Your task to perform on an android device: uninstall "Upside-Cash back on gas & food" Image 0: 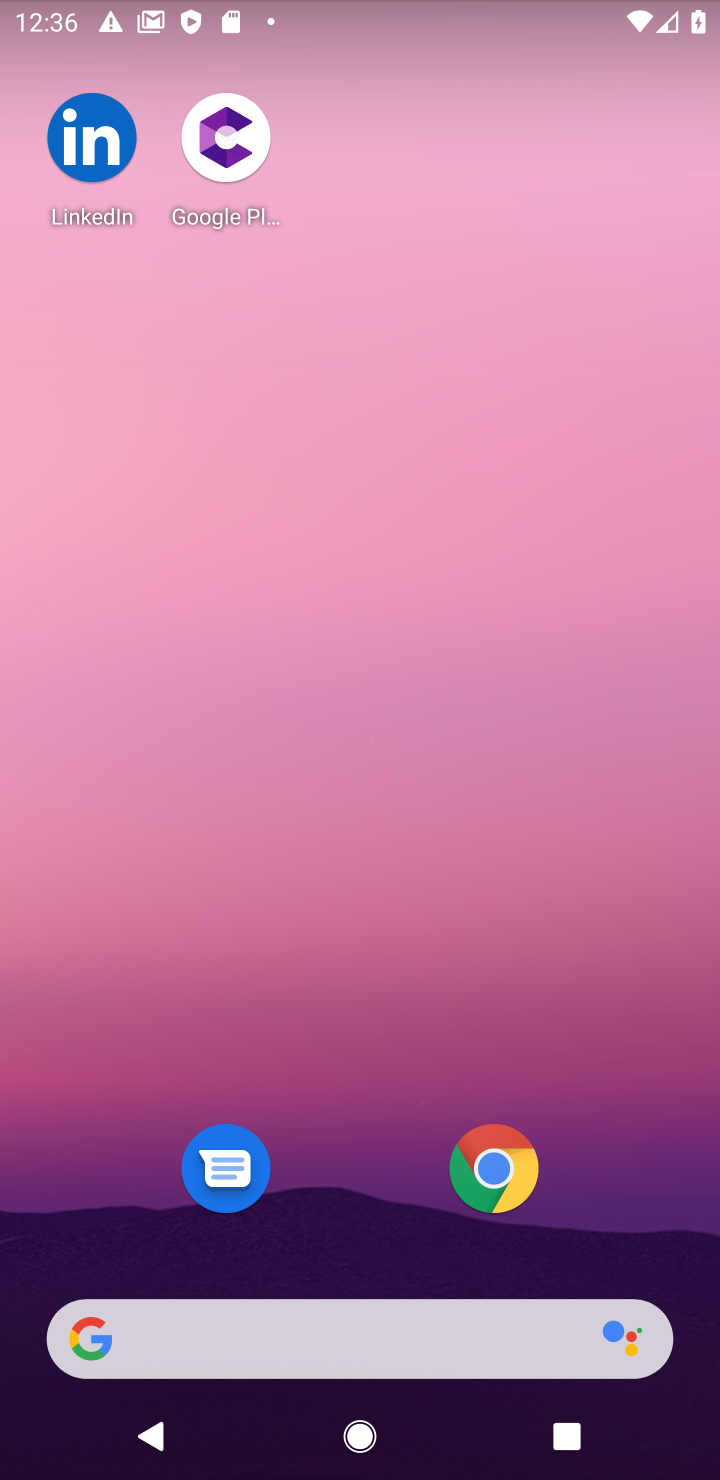
Step 0: press home button
Your task to perform on an android device: uninstall "Upside-Cash back on gas & food" Image 1: 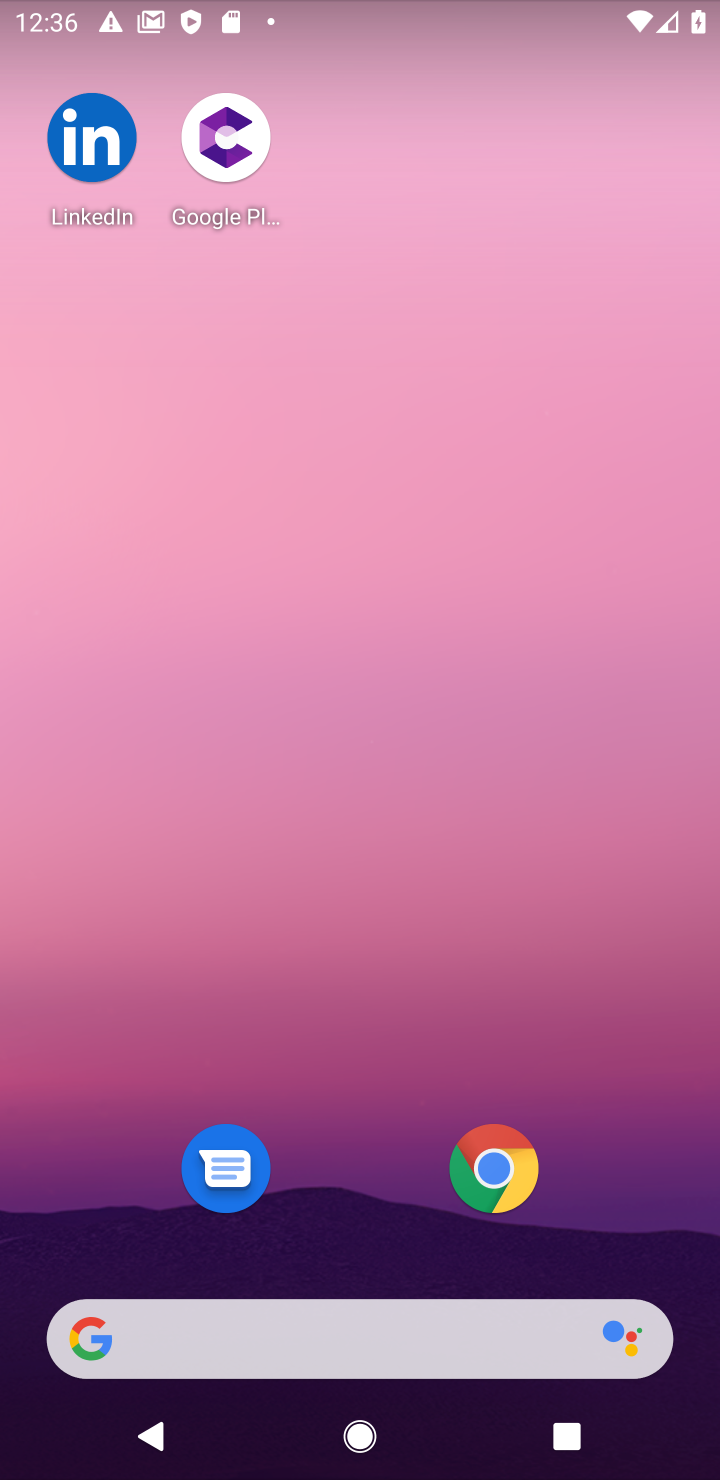
Step 1: press home button
Your task to perform on an android device: uninstall "Upside-Cash back on gas & food" Image 2: 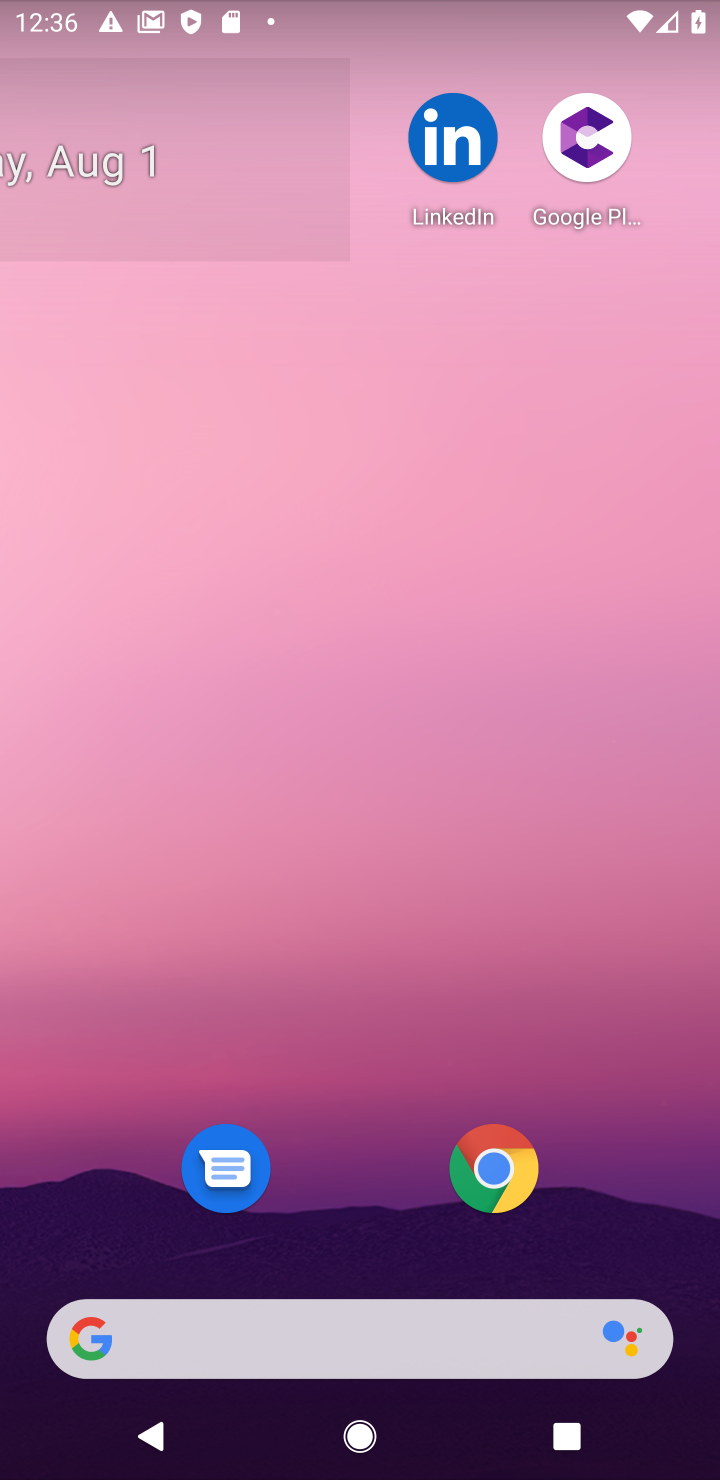
Step 2: click (388, 89)
Your task to perform on an android device: uninstall "Upside-Cash back on gas & food" Image 3: 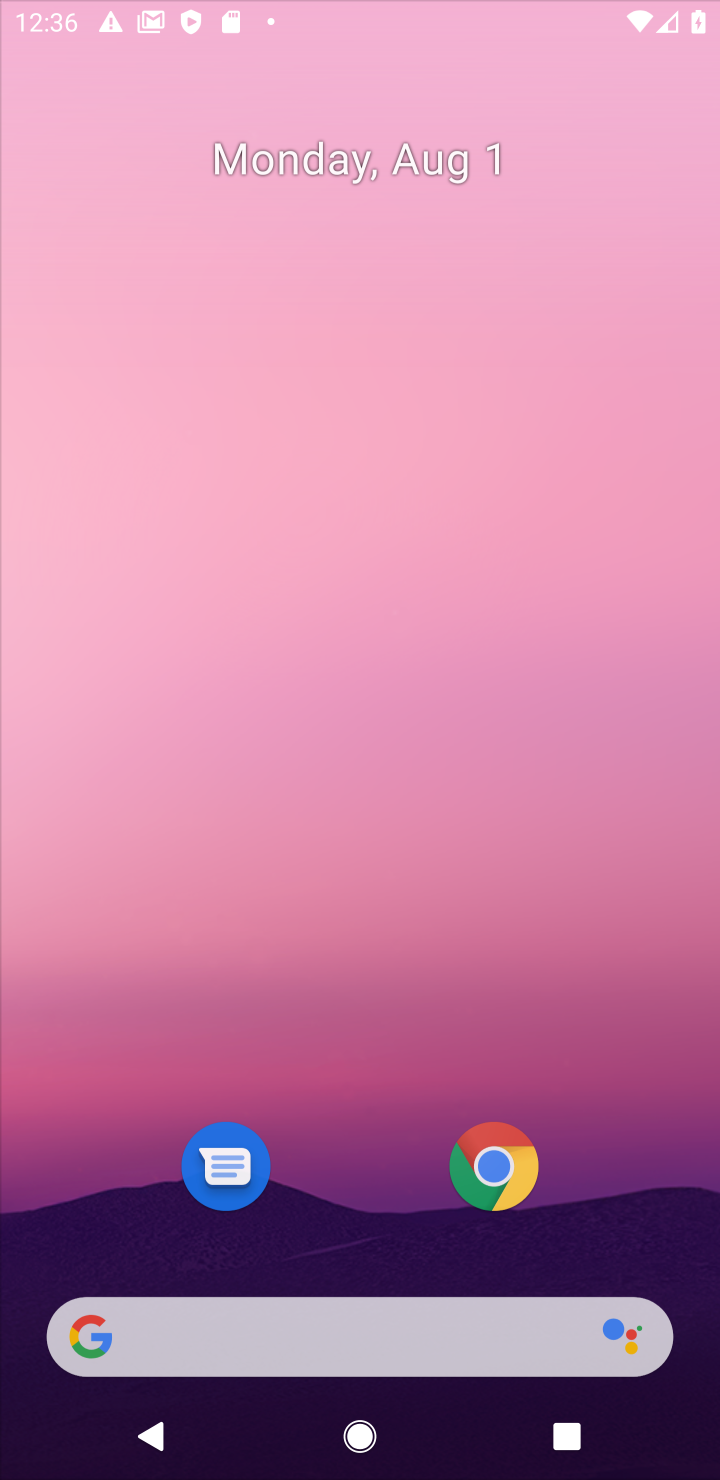
Step 3: drag from (334, 1002) to (381, 183)
Your task to perform on an android device: uninstall "Upside-Cash back on gas & food" Image 4: 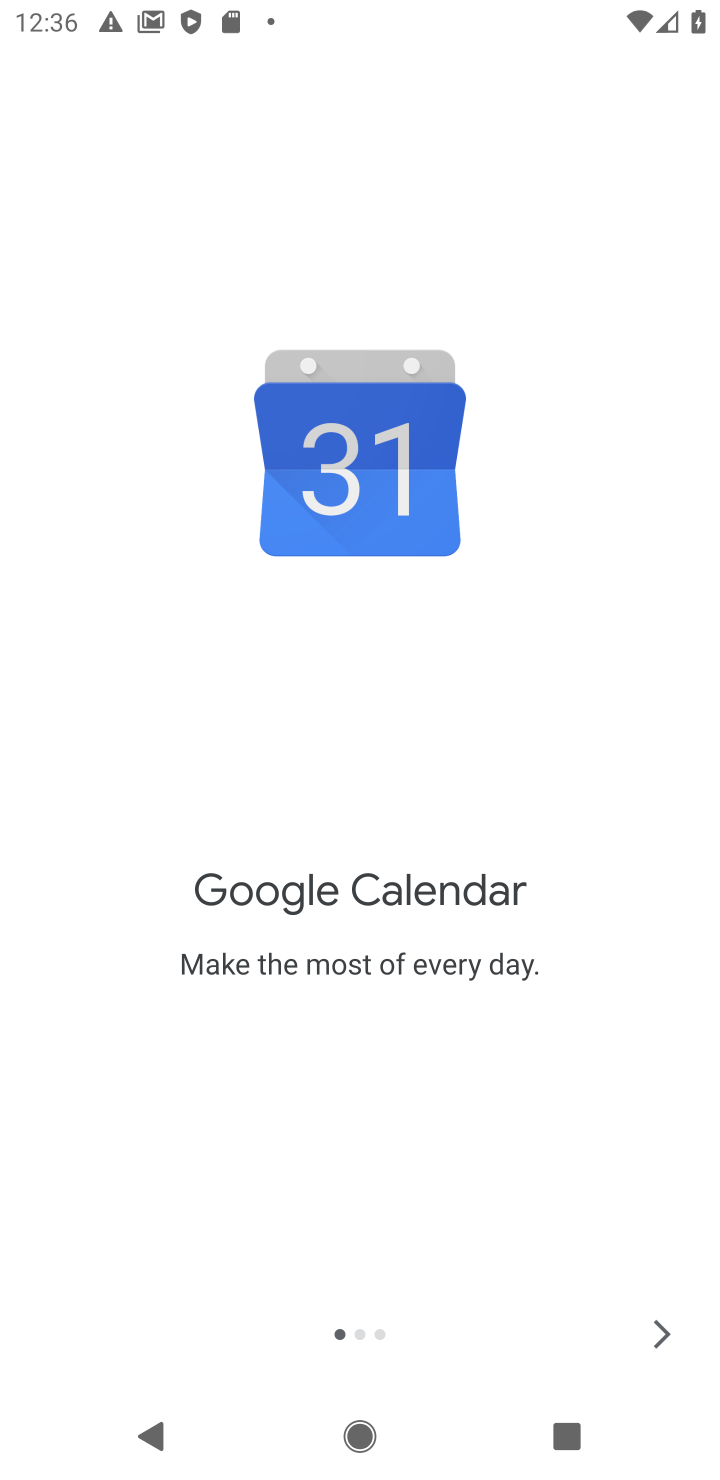
Step 4: press home button
Your task to perform on an android device: uninstall "Upside-Cash back on gas & food" Image 5: 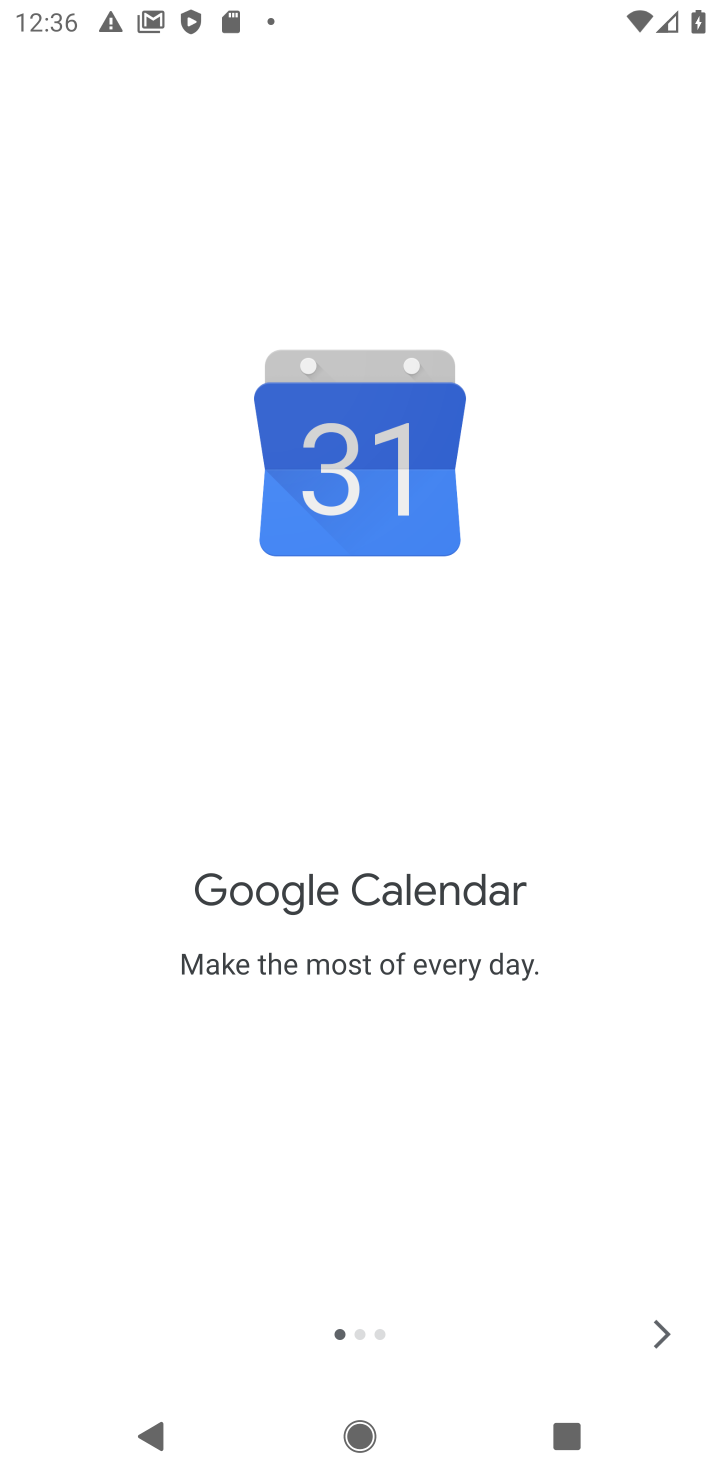
Step 5: press home button
Your task to perform on an android device: uninstall "Upside-Cash back on gas & food" Image 6: 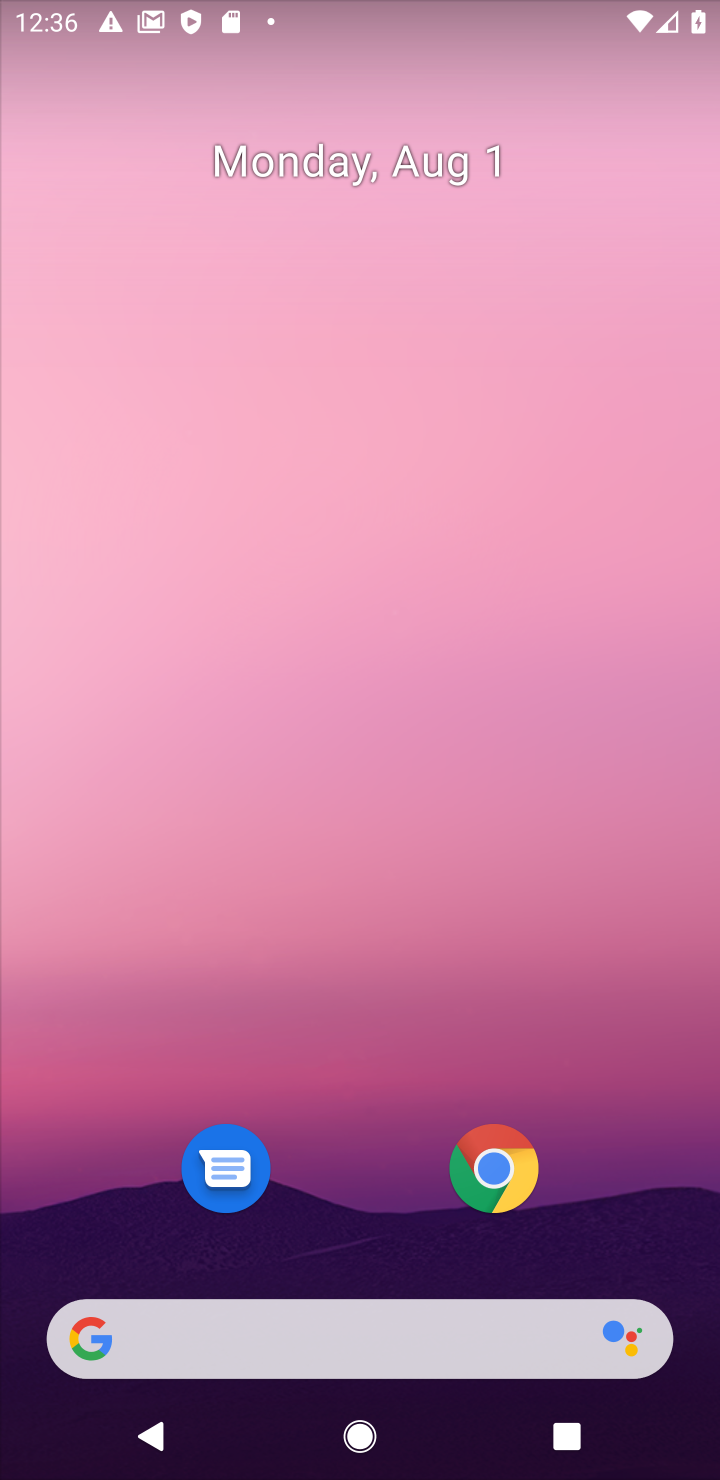
Step 6: drag from (392, 1210) to (327, 195)
Your task to perform on an android device: uninstall "Upside-Cash back on gas & food" Image 7: 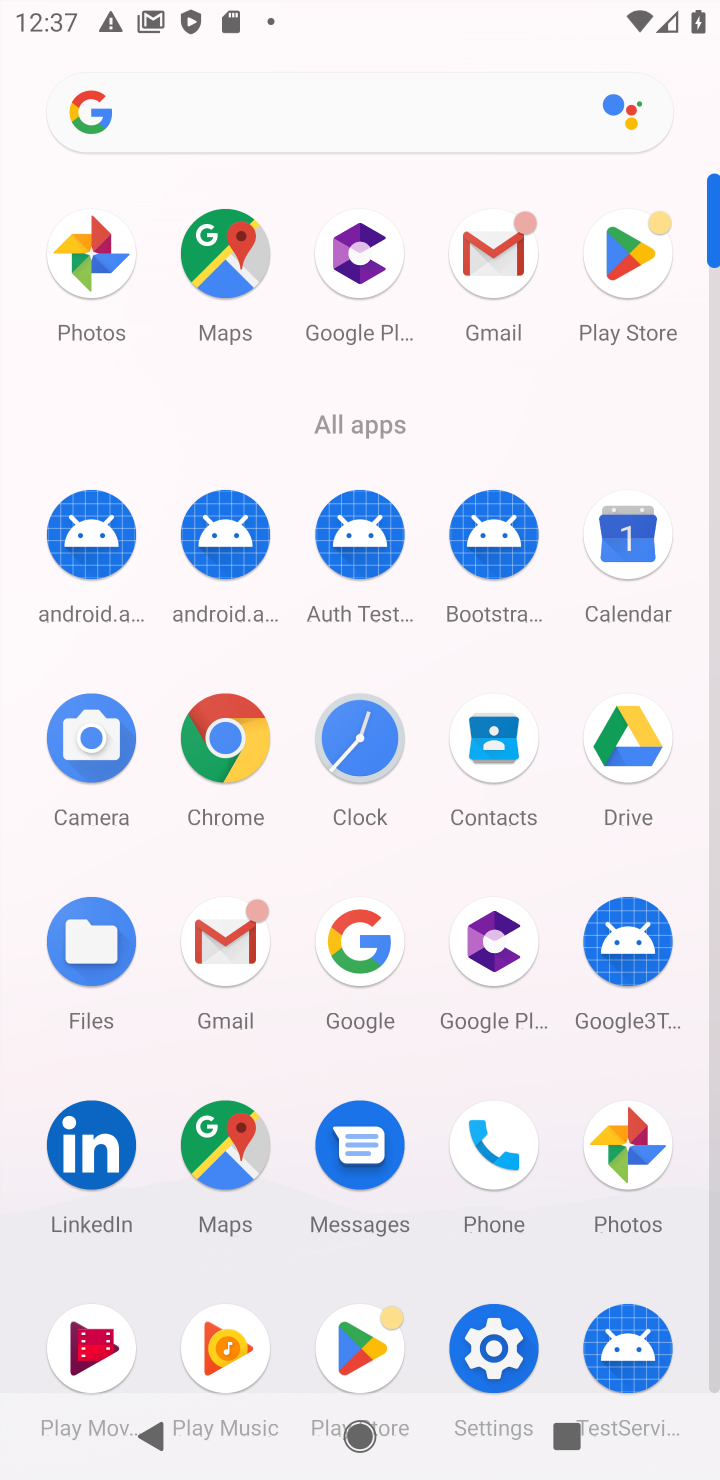
Step 7: click (632, 250)
Your task to perform on an android device: uninstall "Upside-Cash back on gas & food" Image 8: 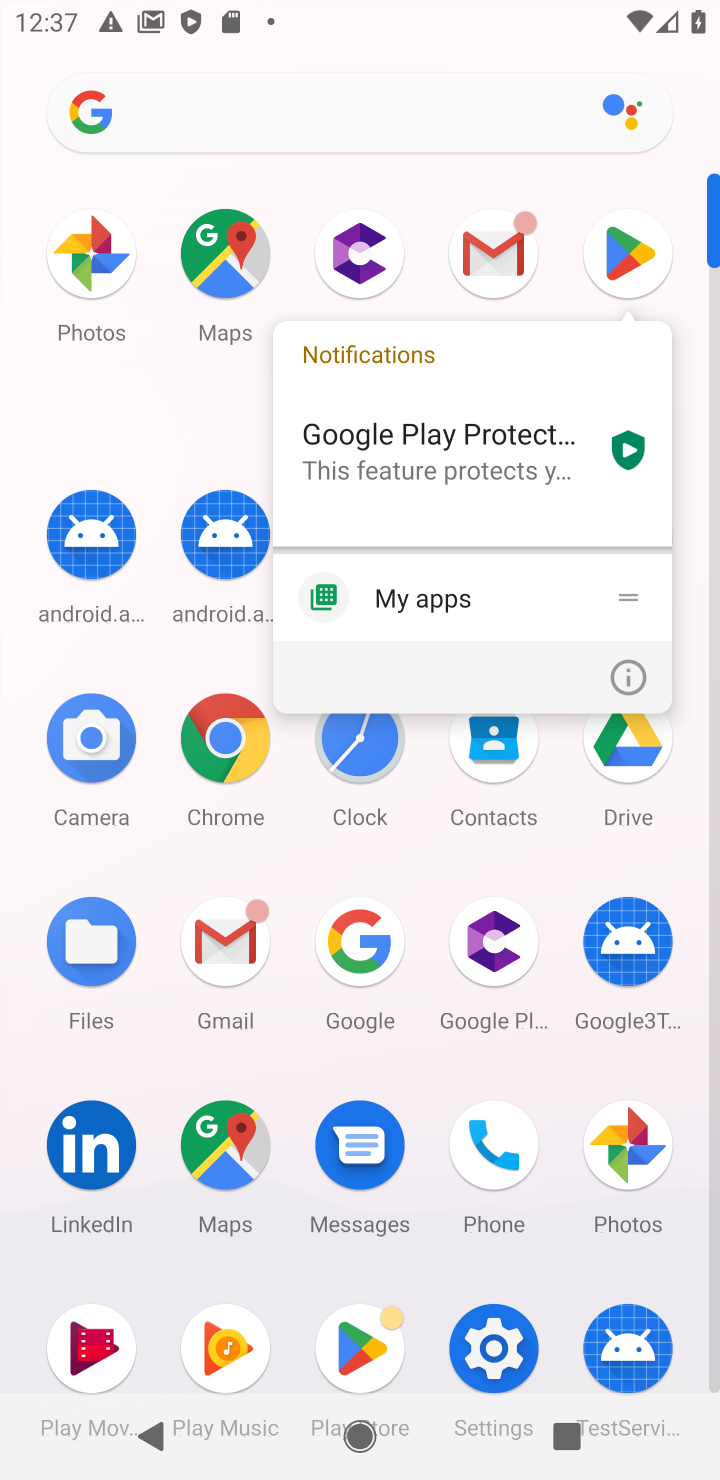
Step 8: click (625, 236)
Your task to perform on an android device: uninstall "Upside-Cash back on gas & food" Image 9: 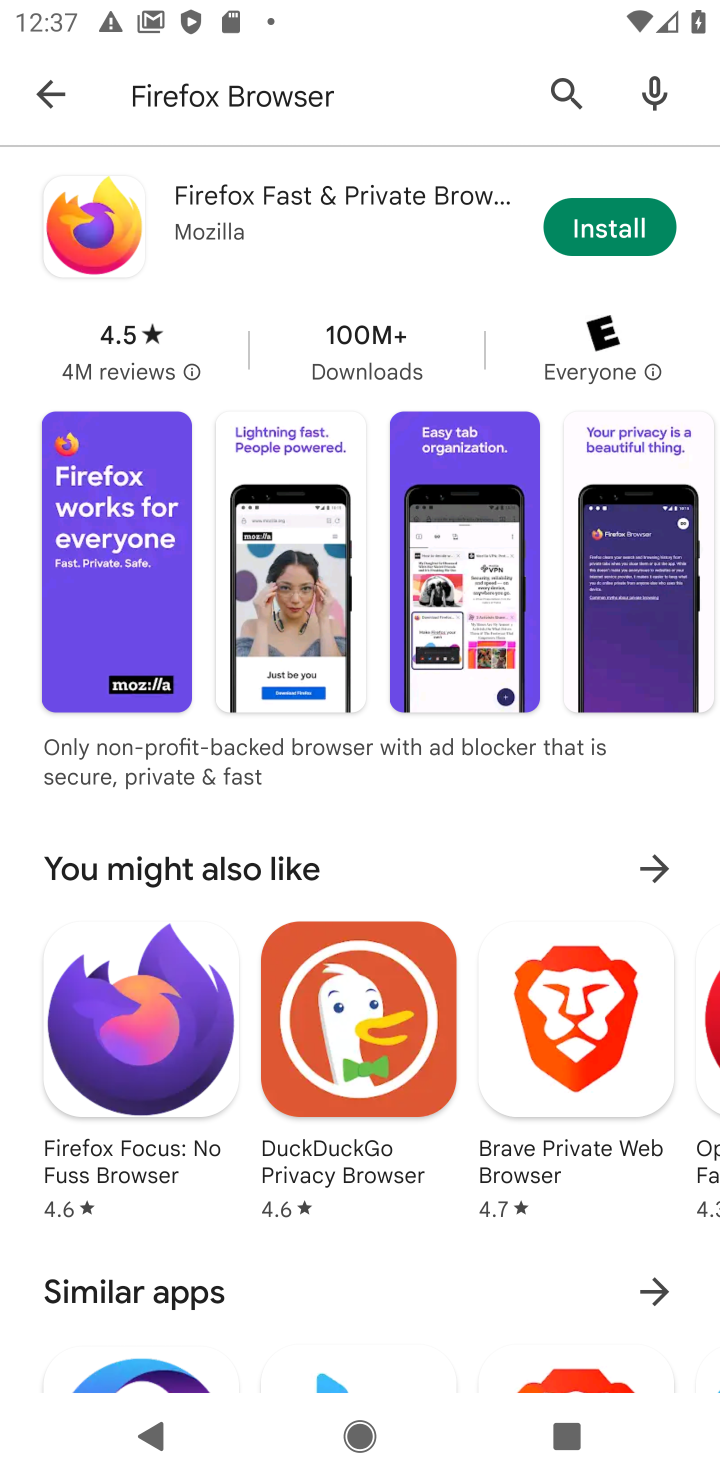
Step 9: click (438, 89)
Your task to perform on an android device: uninstall "Upside-Cash back on gas & food" Image 10: 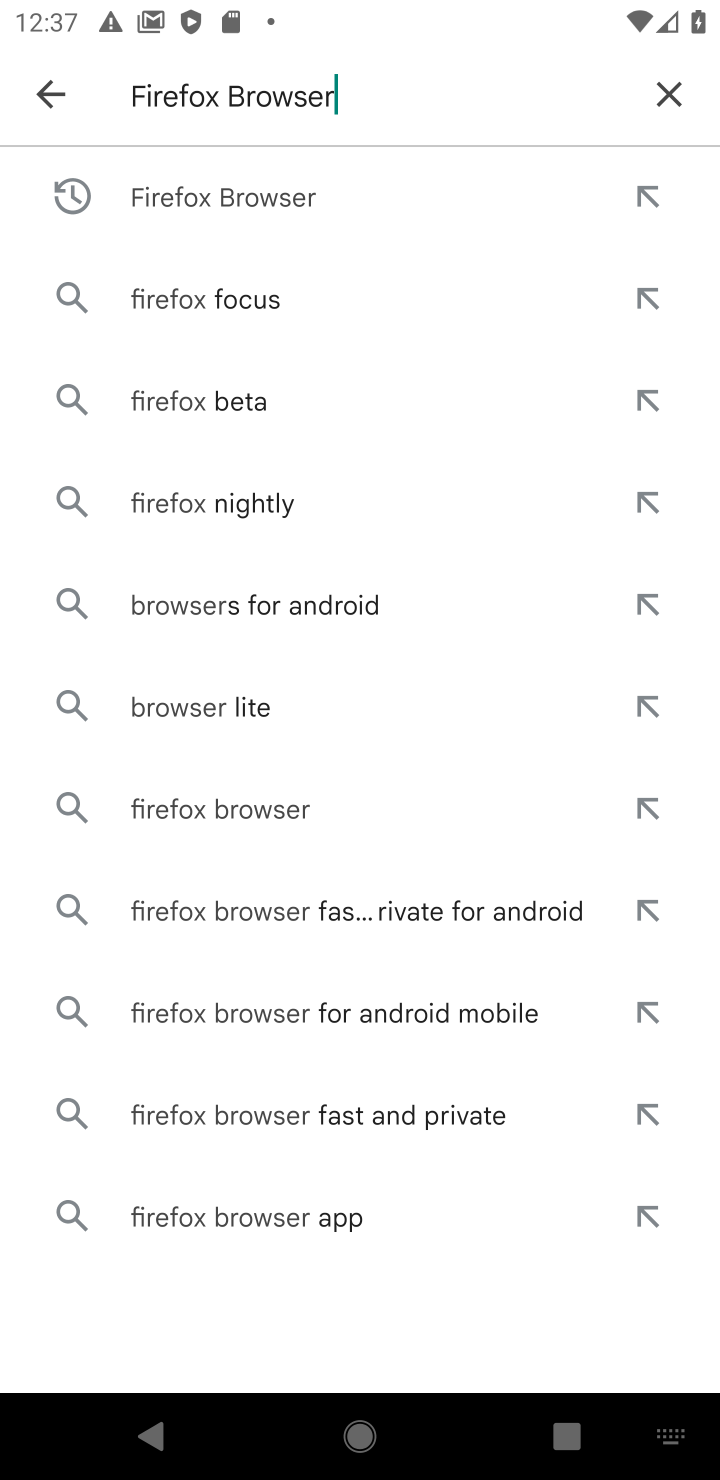
Step 10: click (649, 80)
Your task to perform on an android device: uninstall "Upside-Cash back on gas & food" Image 11: 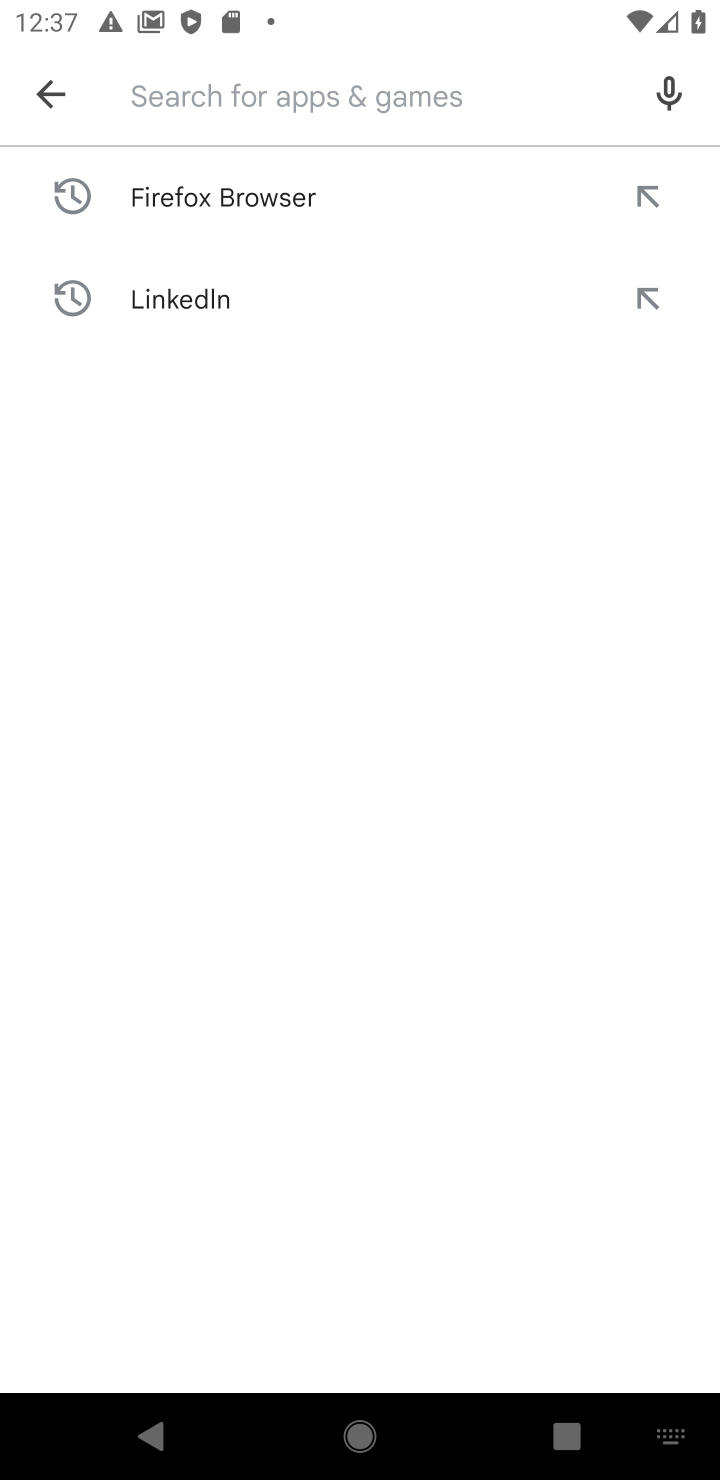
Step 11: type "Upside-Cash back on gas & food"
Your task to perform on an android device: uninstall "Upside-Cash back on gas & food" Image 12: 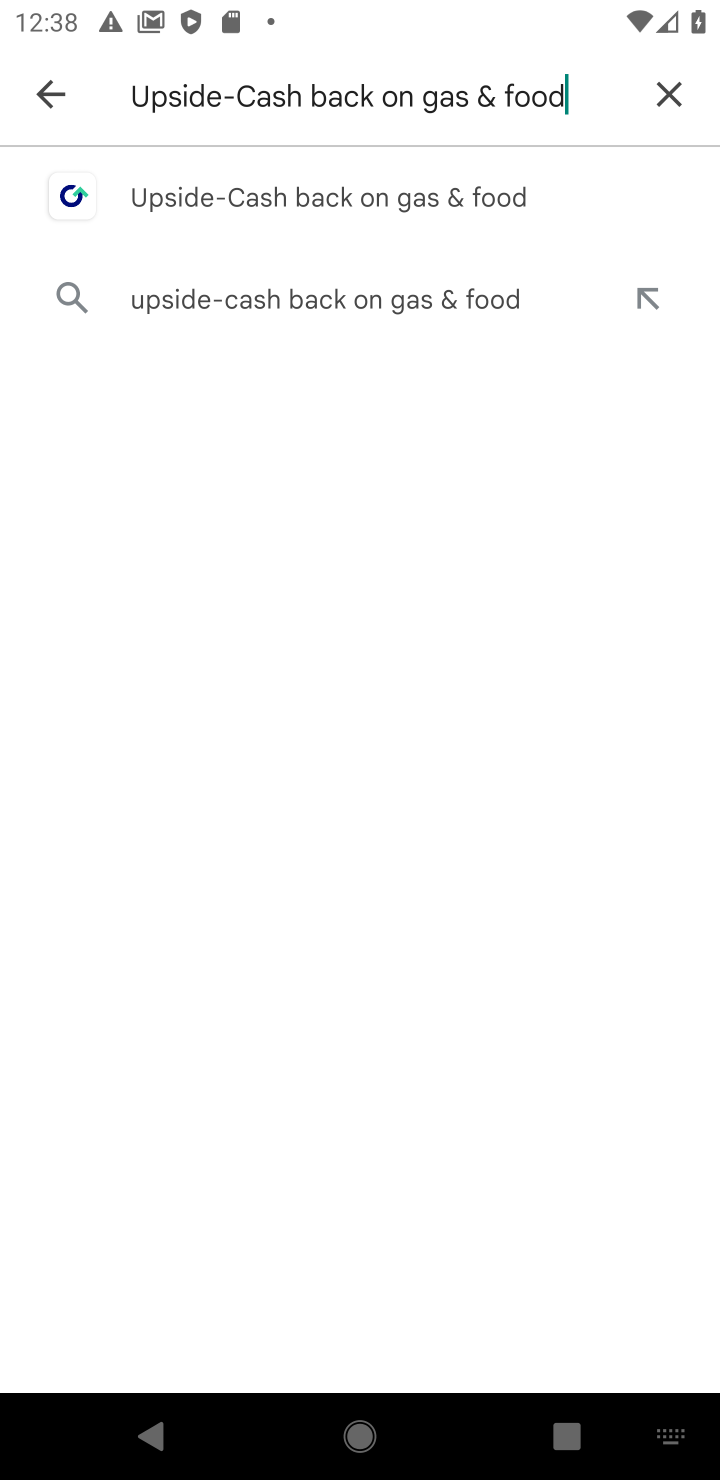
Step 12: press enter
Your task to perform on an android device: uninstall "Upside-Cash back on gas & food" Image 13: 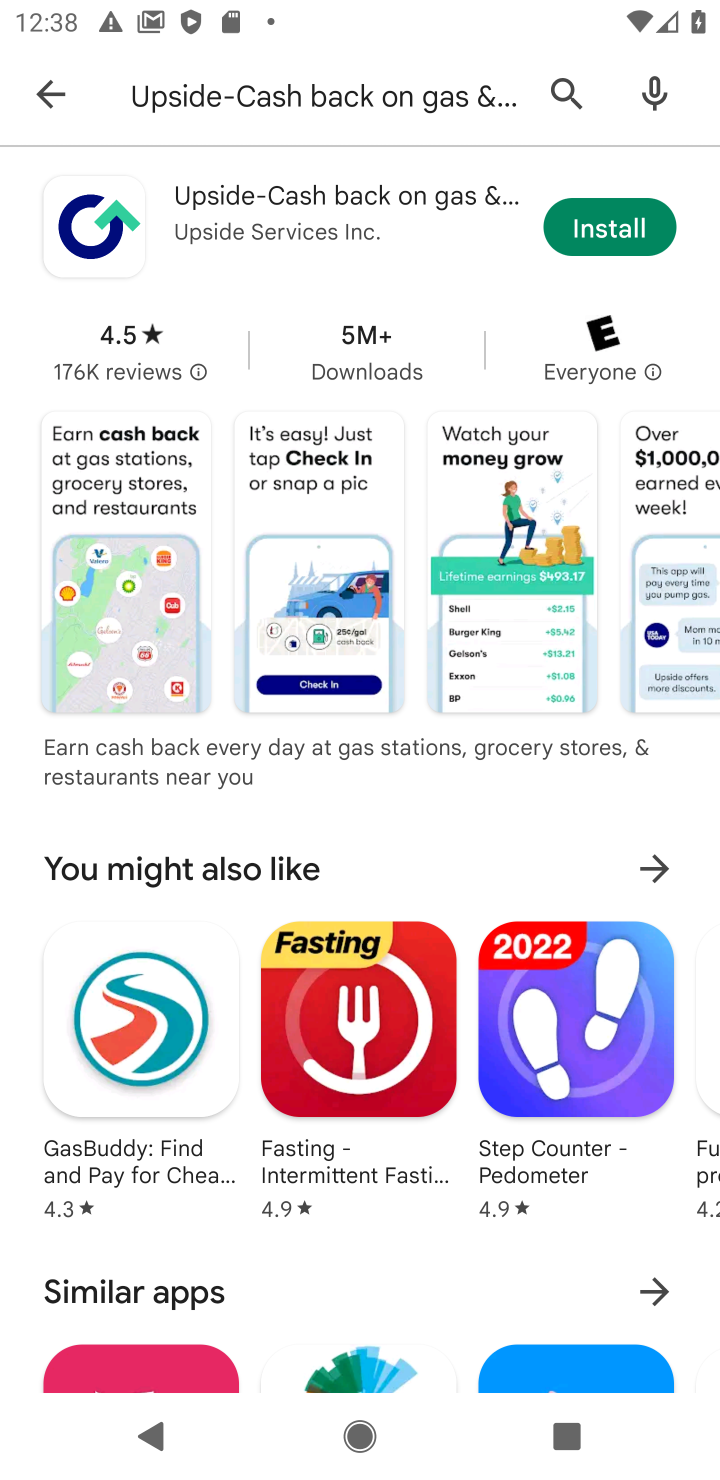
Step 13: task complete